Your task to perform on an android device: toggle translation in the chrome app Image 0: 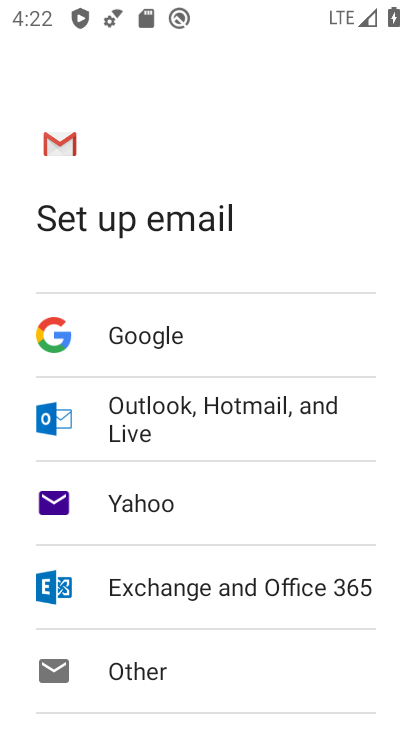
Step 0: press back button
Your task to perform on an android device: toggle translation in the chrome app Image 1: 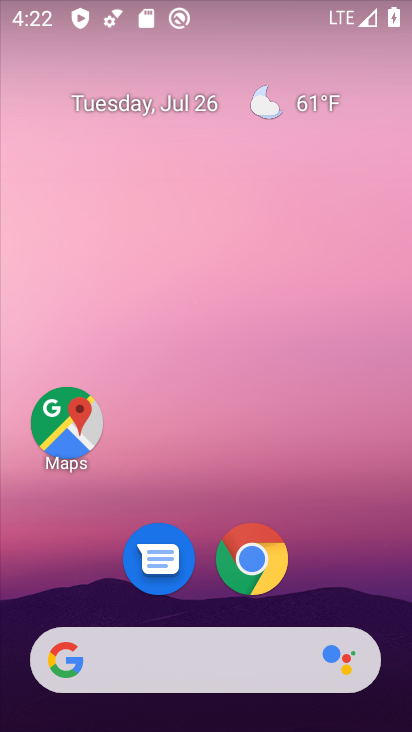
Step 1: click (241, 554)
Your task to perform on an android device: toggle translation in the chrome app Image 2: 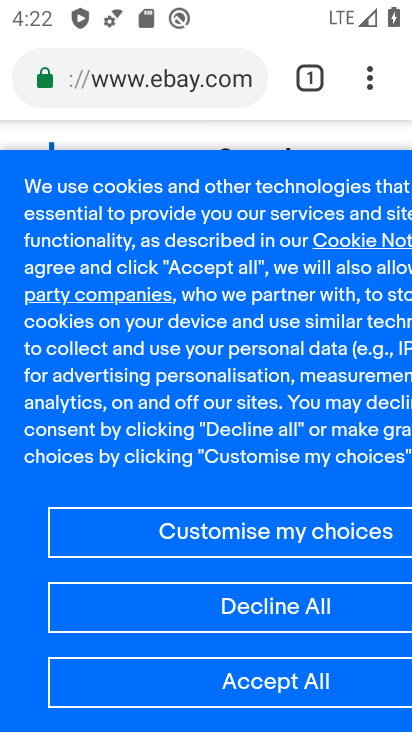
Step 2: drag from (374, 75) to (105, 617)
Your task to perform on an android device: toggle translation in the chrome app Image 3: 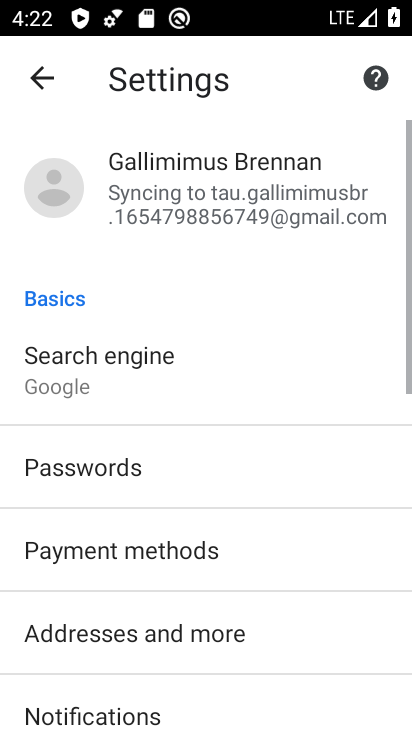
Step 3: drag from (188, 644) to (226, 112)
Your task to perform on an android device: toggle translation in the chrome app Image 4: 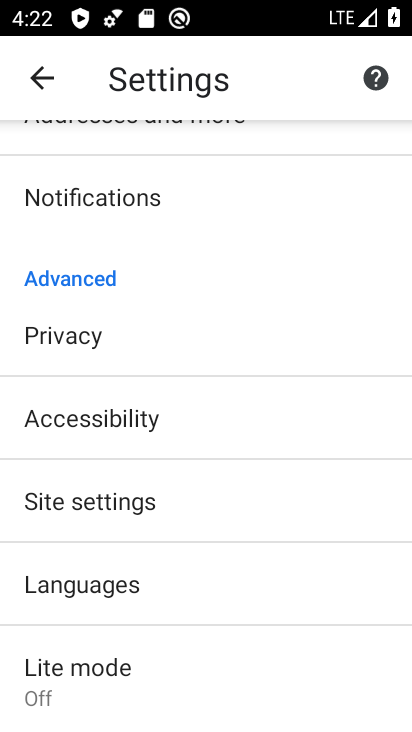
Step 4: click (137, 591)
Your task to perform on an android device: toggle translation in the chrome app Image 5: 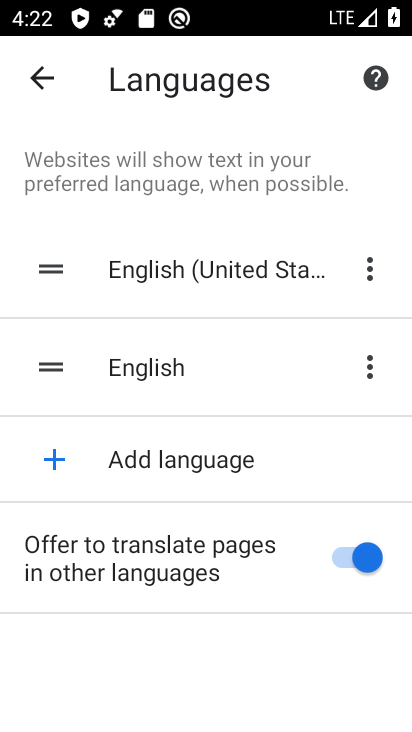
Step 5: click (363, 550)
Your task to perform on an android device: toggle translation in the chrome app Image 6: 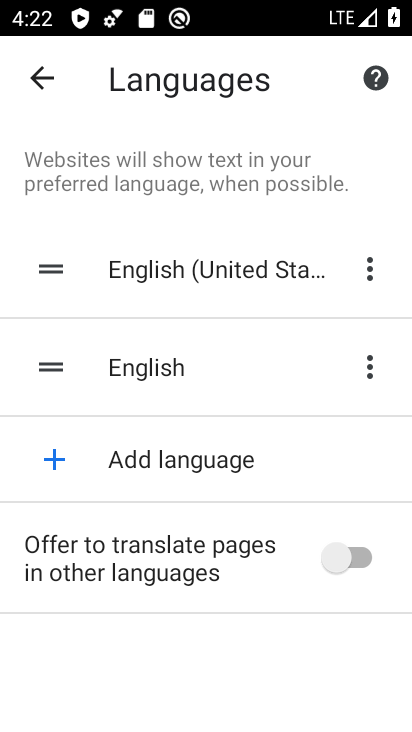
Step 6: task complete